Your task to perform on an android device: Open Chrome and go to settings Image 0: 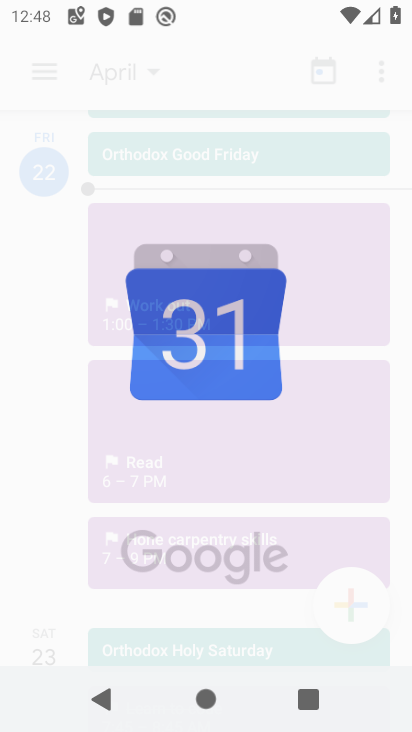
Step 0: drag from (341, 395) to (264, 120)
Your task to perform on an android device: Open Chrome and go to settings Image 1: 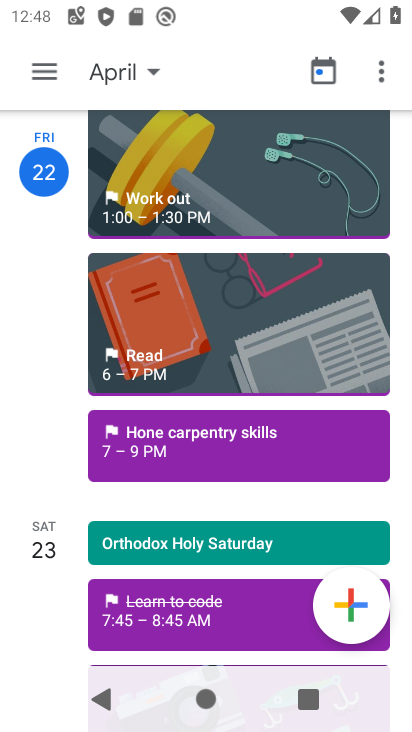
Step 1: press home button
Your task to perform on an android device: Open Chrome and go to settings Image 2: 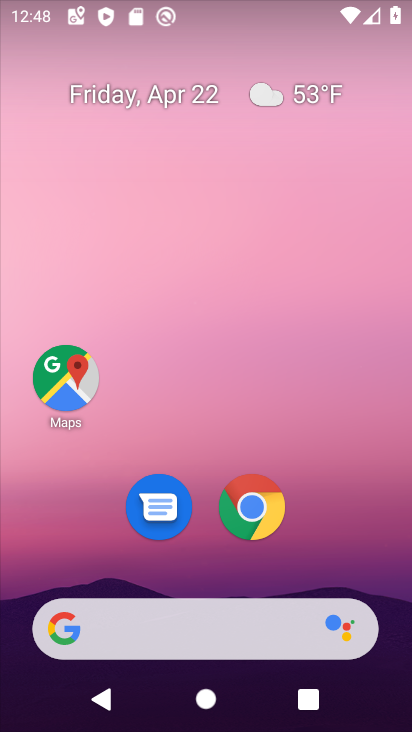
Step 2: click (263, 504)
Your task to perform on an android device: Open Chrome and go to settings Image 3: 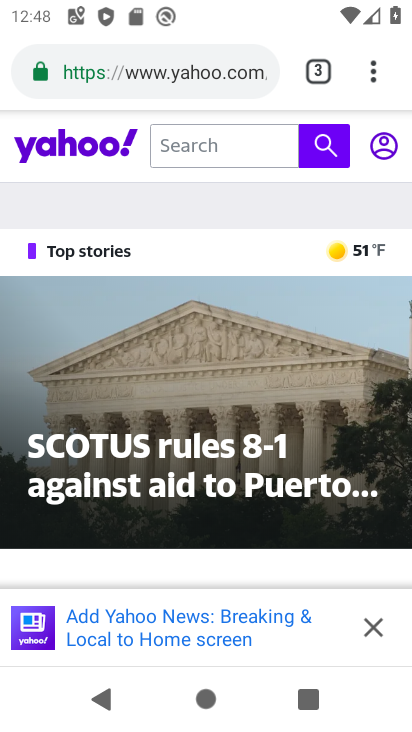
Step 3: task complete